Your task to perform on an android device: toggle location history Image 0: 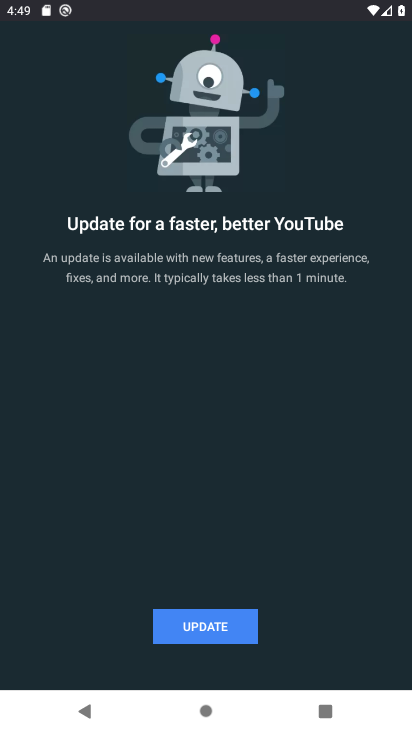
Step 0: drag from (263, 695) to (207, 309)
Your task to perform on an android device: toggle location history Image 1: 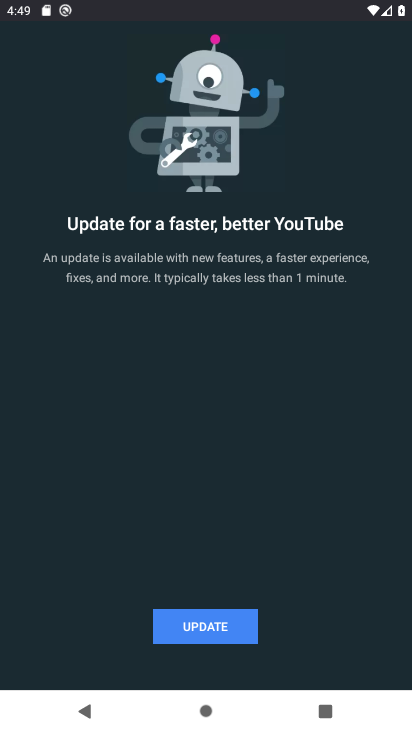
Step 1: click (209, 634)
Your task to perform on an android device: toggle location history Image 2: 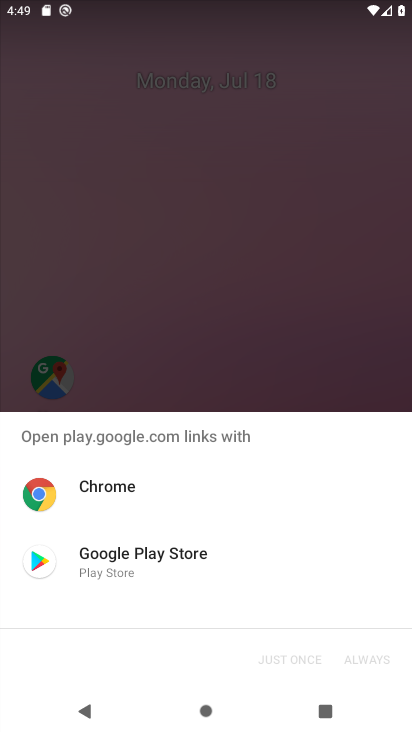
Step 2: drag from (250, 299) to (235, 9)
Your task to perform on an android device: toggle location history Image 3: 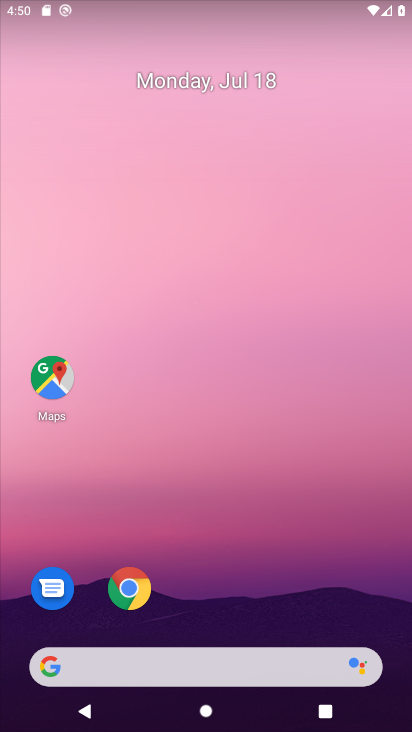
Step 3: drag from (243, 597) to (192, 129)
Your task to perform on an android device: toggle location history Image 4: 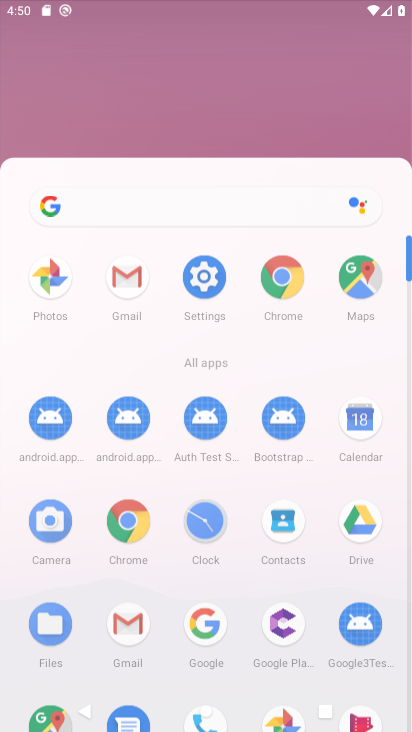
Step 4: drag from (265, 612) to (195, 158)
Your task to perform on an android device: toggle location history Image 5: 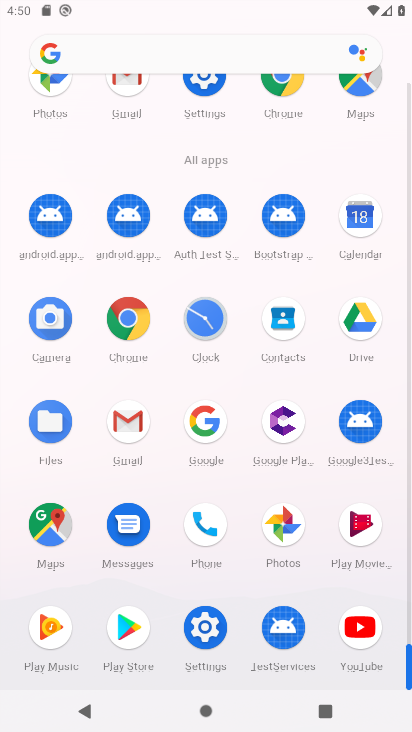
Step 5: click (66, 530)
Your task to perform on an android device: toggle location history Image 6: 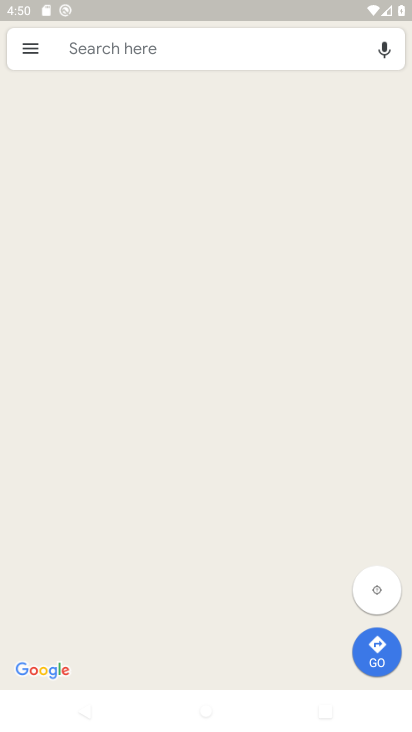
Step 6: press home button
Your task to perform on an android device: toggle location history Image 7: 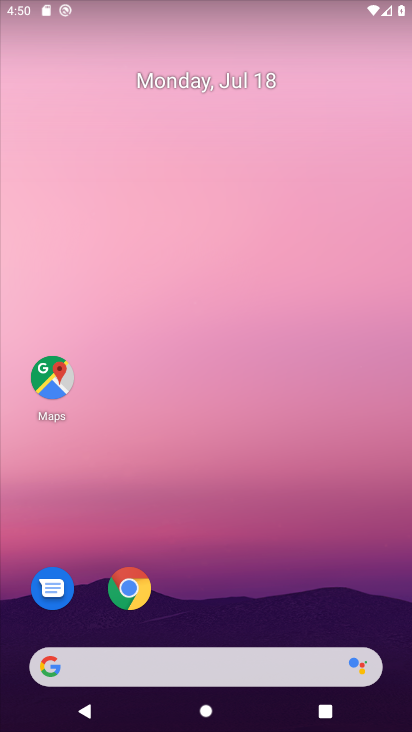
Step 7: drag from (262, 671) to (242, 207)
Your task to perform on an android device: toggle location history Image 8: 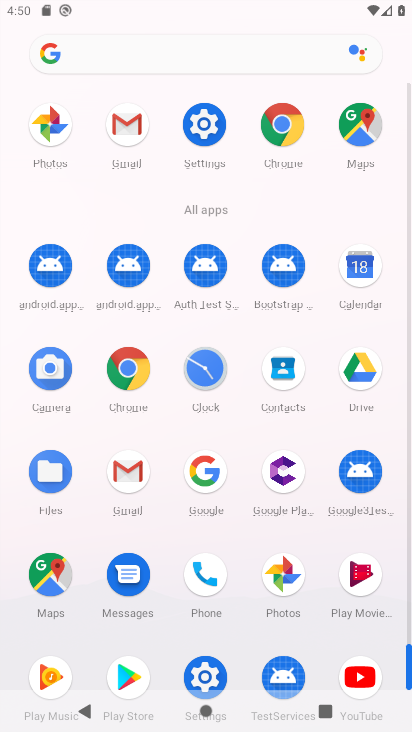
Step 8: click (206, 674)
Your task to perform on an android device: toggle location history Image 9: 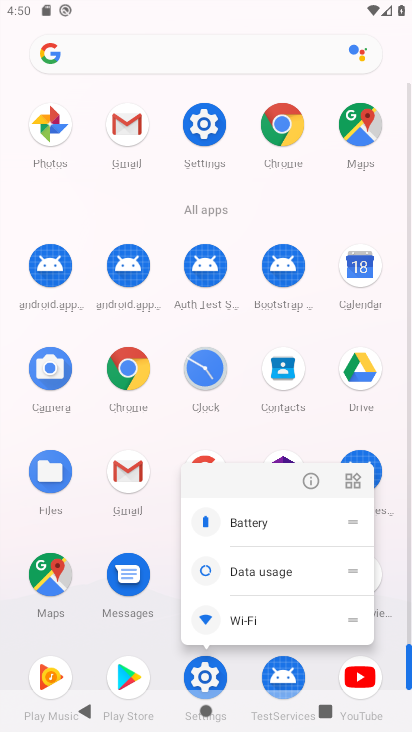
Step 9: click (243, 704)
Your task to perform on an android device: toggle location history Image 10: 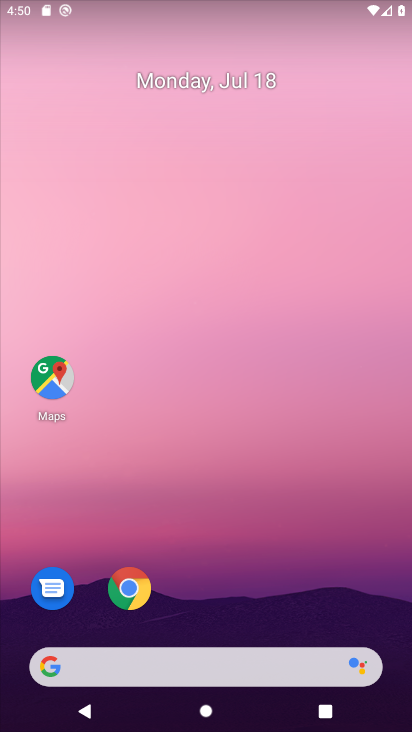
Step 10: drag from (243, 675) to (223, 338)
Your task to perform on an android device: toggle location history Image 11: 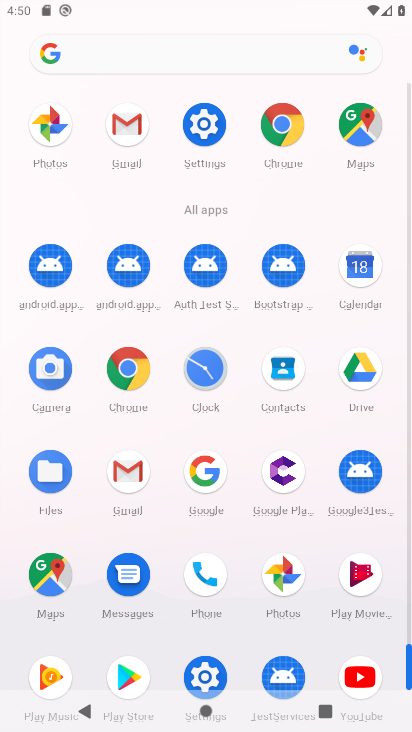
Step 11: drag from (195, 348) to (181, 262)
Your task to perform on an android device: toggle location history Image 12: 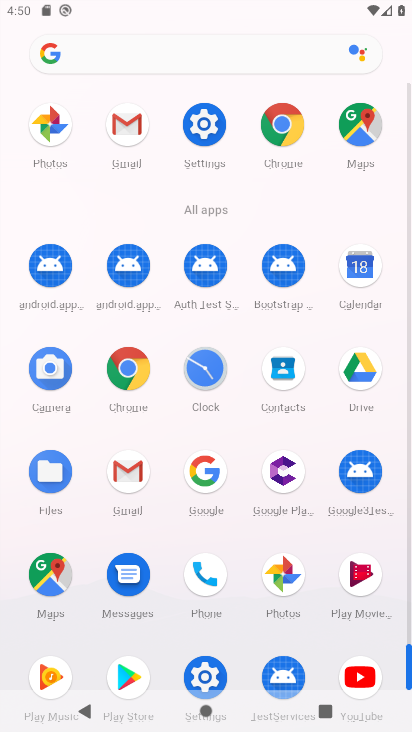
Step 12: click (205, 122)
Your task to perform on an android device: toggle location history Image 13: 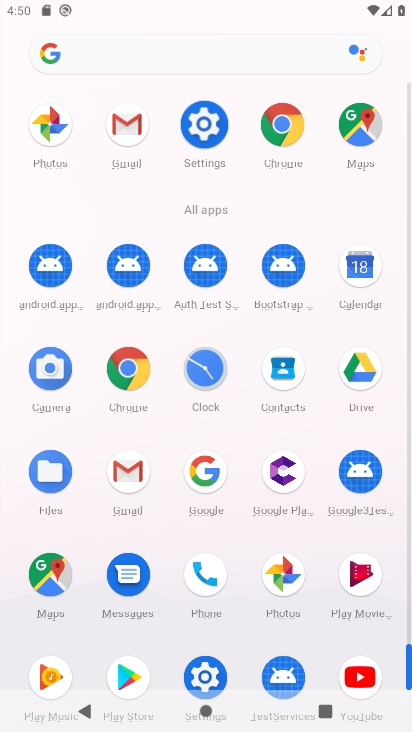
Step 13: click (205, 122)
Your task to perform on an android device: toggle location history Image 14: 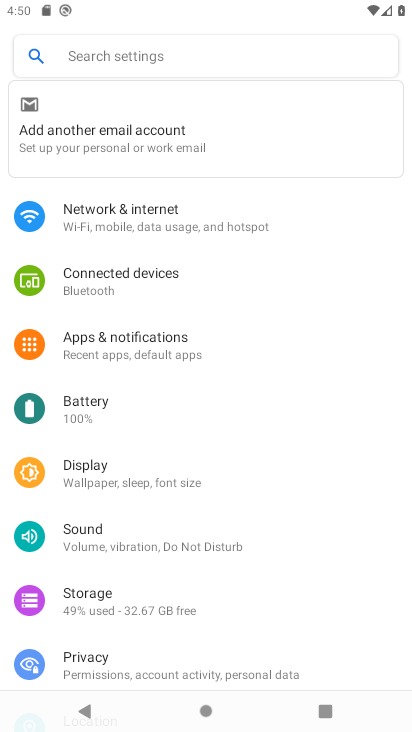
Step 14: drag from (87, 495) to (50, 226)
Your task to perform on an android device: toggle location history Image 15: 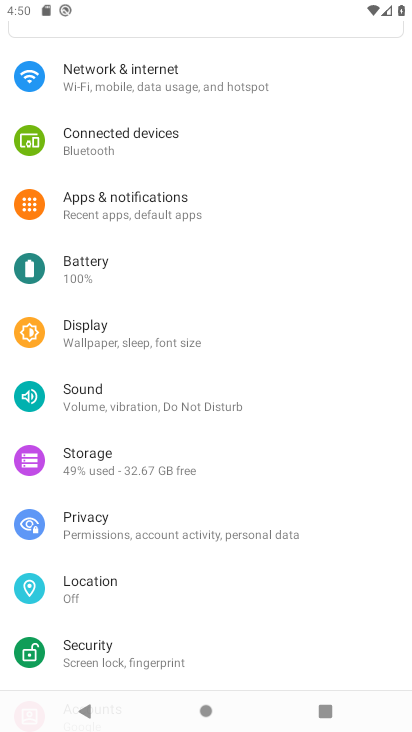
Step 15: drag from (136, 512) to (113, 274)
Your task to perform on an android device: toggle location history Image 16: 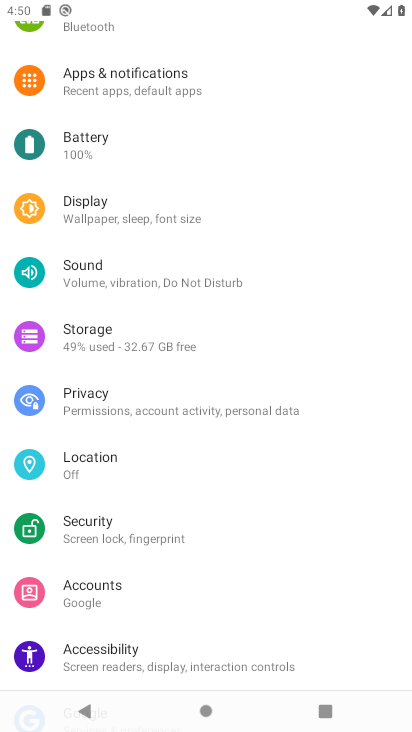
Step 16: click (78, 459)
Your task to perform on an android device: toggle location history Image 17: 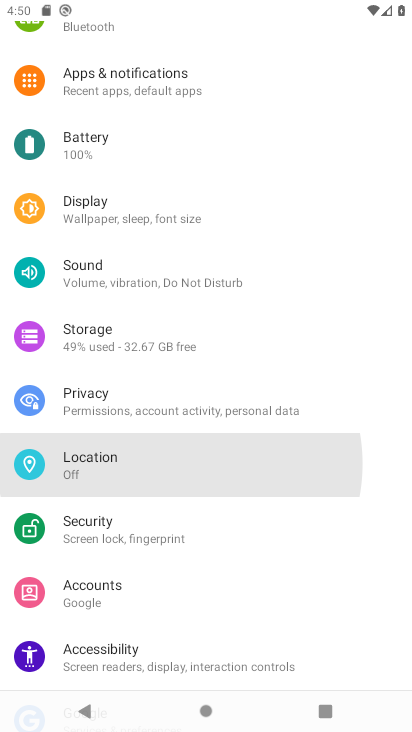
Step 17: click (81, 462)
Your task to perform on an android device: toggle location history Image 18: 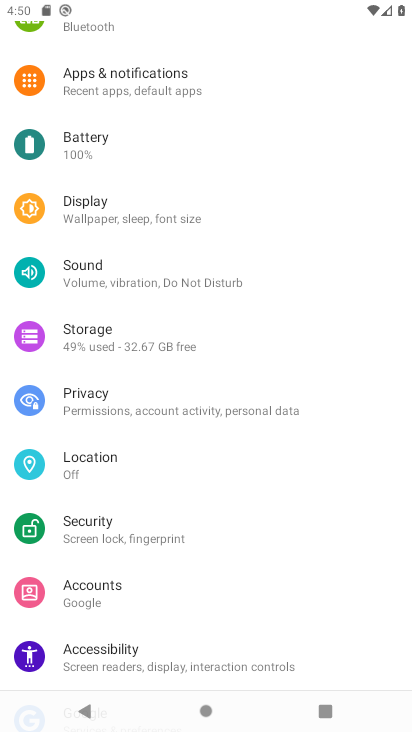
Step 18: click (86, 464)
Your task to perform on an android device: toggle location history Image 19: 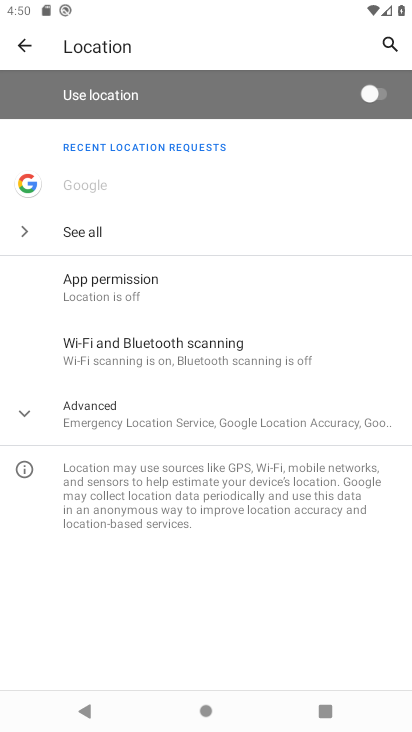
Step 19: click (122, 422)
Your task to perform on an android device: toggle location history Image 20: 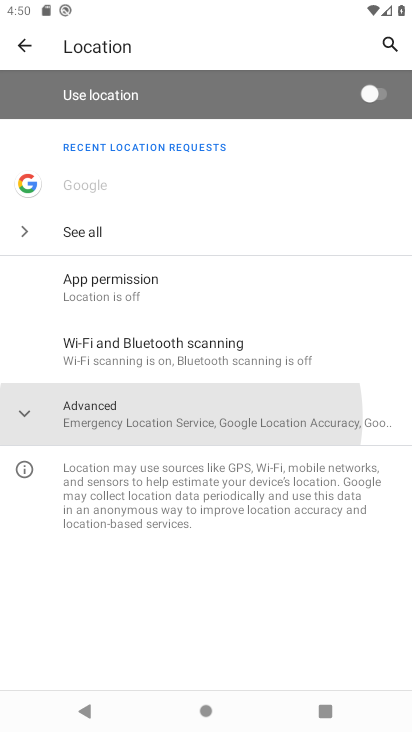
Step 20: click (130, 417)
Your task to perform on an android device: toggle location history Image 21: 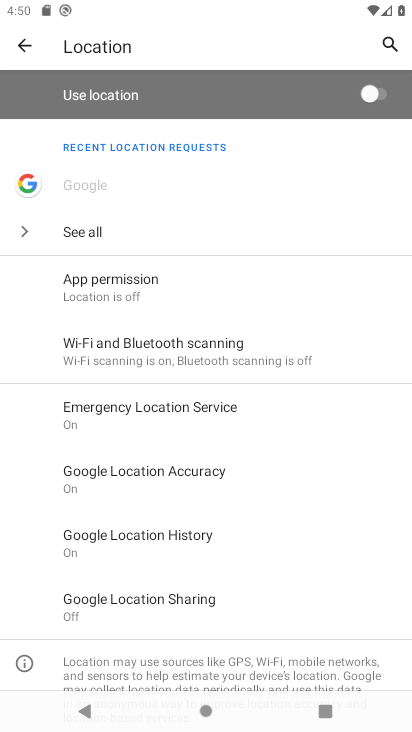
Step 21: click (172, 520)
Your task to perform on an android device: toggle location history Image 22: 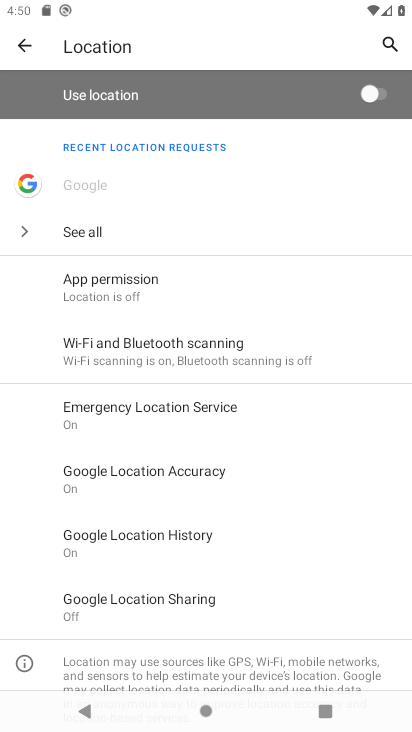
Step 22: click (172, 525)
Your task to perform on an android device: toggle location history Image 23: 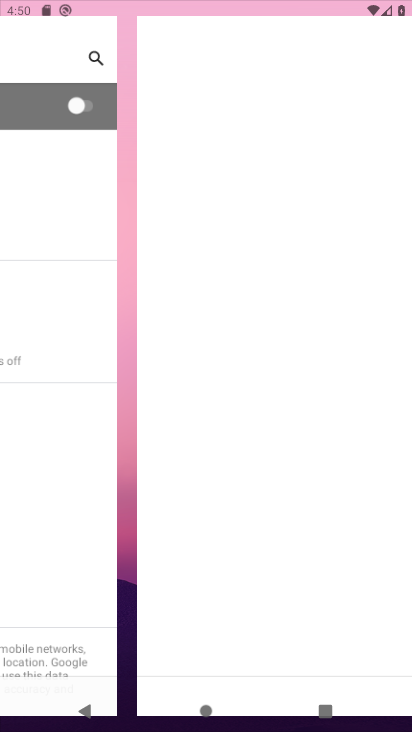
Step 23: click (183, 531)
Your task to perform on an android device: toggle location history Image 24: 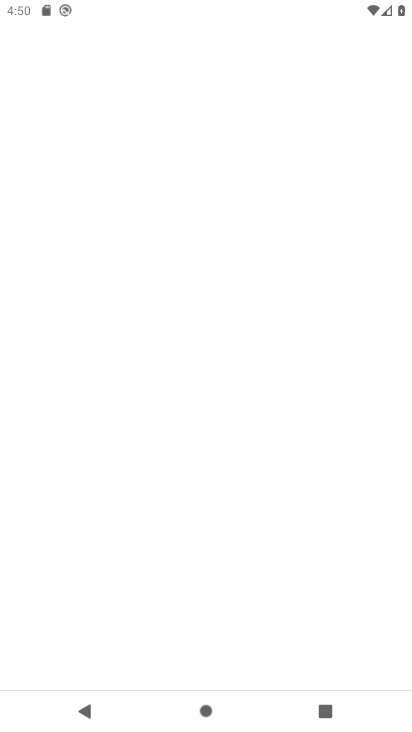
Step 24: click (201, 550)
Your task to perform on an android device: toggle location history Image 25: 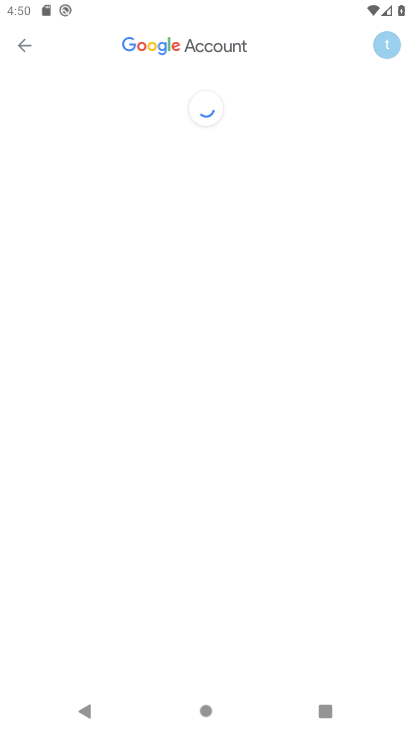
Step 25: task complete